Your task to perform on an android device: turn on sleep mode Image 0: 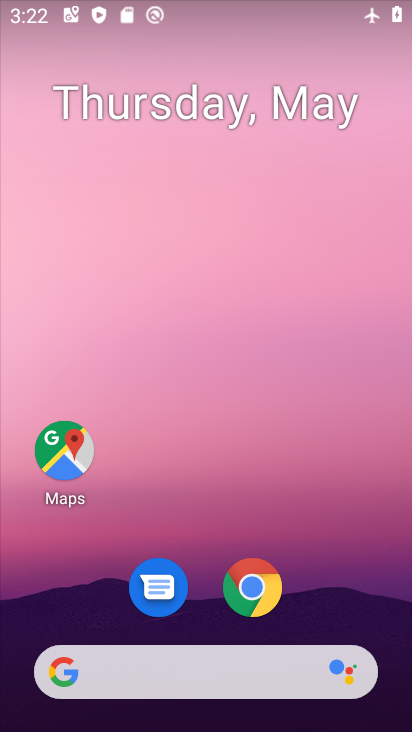
Step 0: drag from (202, 583) to (198, 213)
Your task to perform on an android device: turn on sleep mode Image 1: 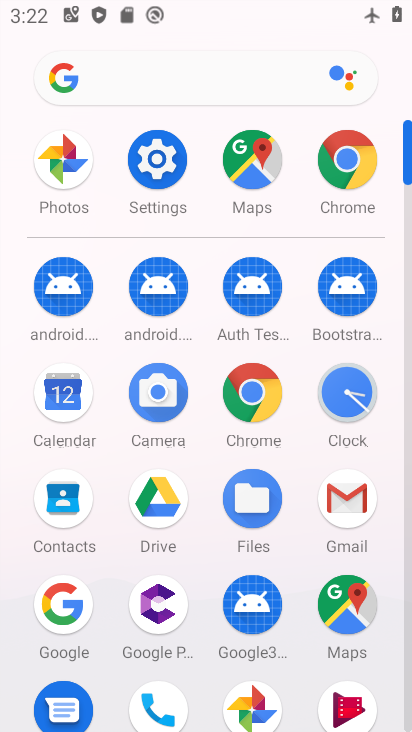
Step 1: click (149, 172)
Your task to perform on an android device: turn on sleep mode Image 2: 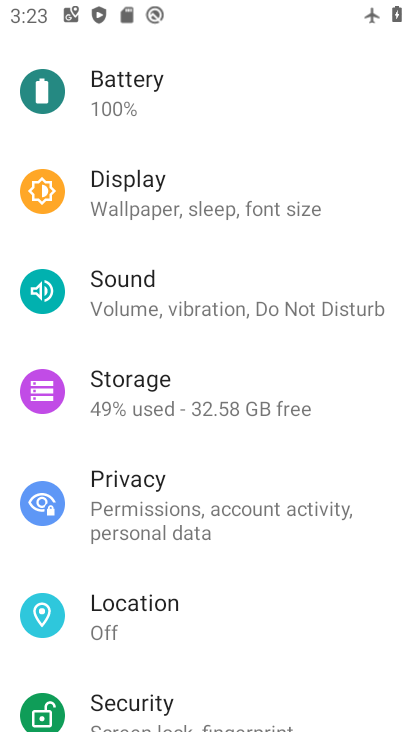
Step 2: drag from (152, 420) to (130, 201)
Your task to perform on an android device: turn on sleep mode Image 3: 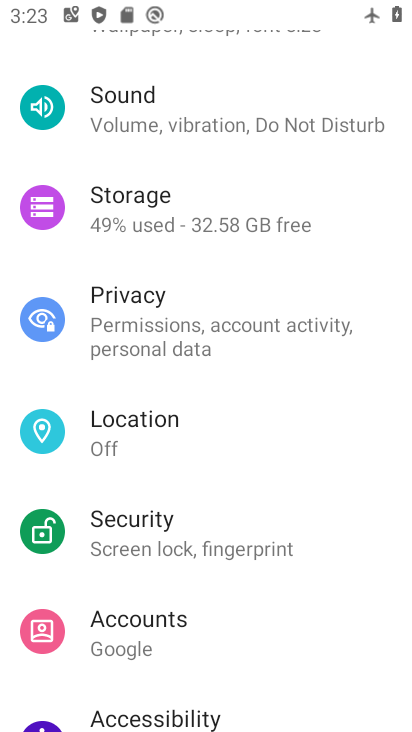
Step 3: drag from (152, 232) to (153, 514)
Your task to perform on an android device: turn on sleep mode Image 4: 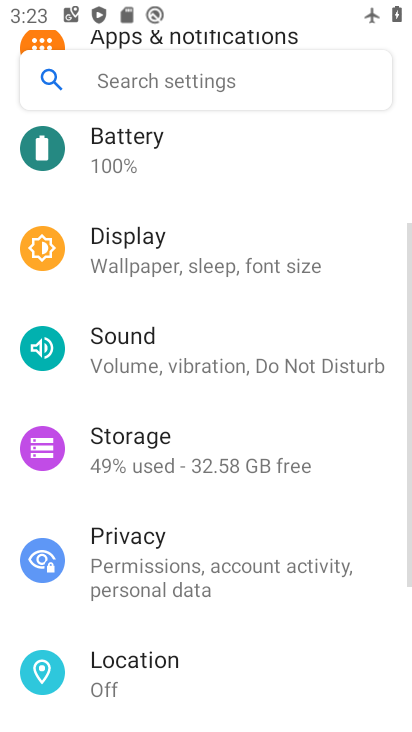
Step 4: drag from (145, 327) to (126, 531)
Your task to perform on an android device: turn on sleep mode Image 5: 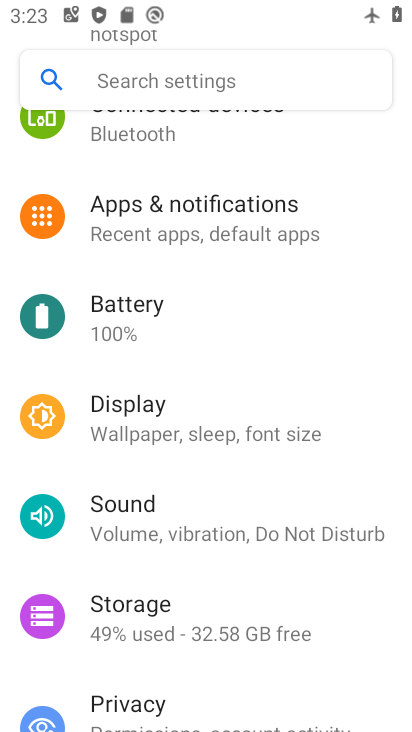
Step 5: drag from (114, 317) to (104, 543)
Your task to perform on an android device: turn on sleep mode Image 6: 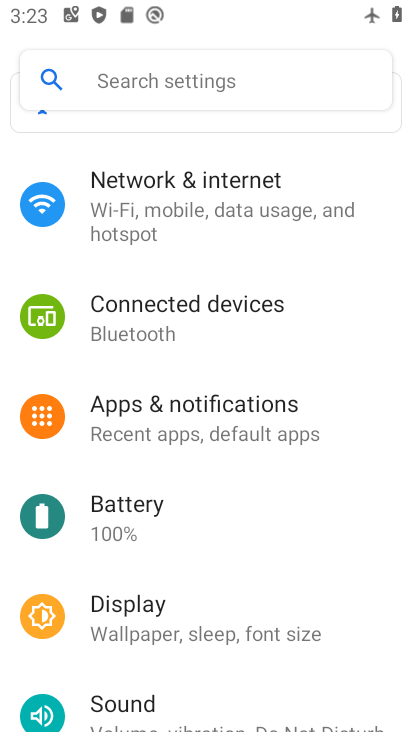
Step 6: drag from (107, 512) to (112, 315)
Your task to perform on an android device: turn on sleep mode Image 7: 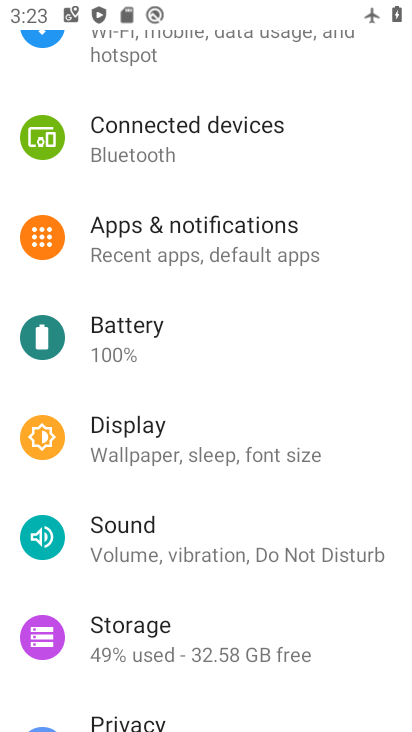
Step 7: click (123, 433)
Your task to perform on an android device: turn on sleep mode Image 8: 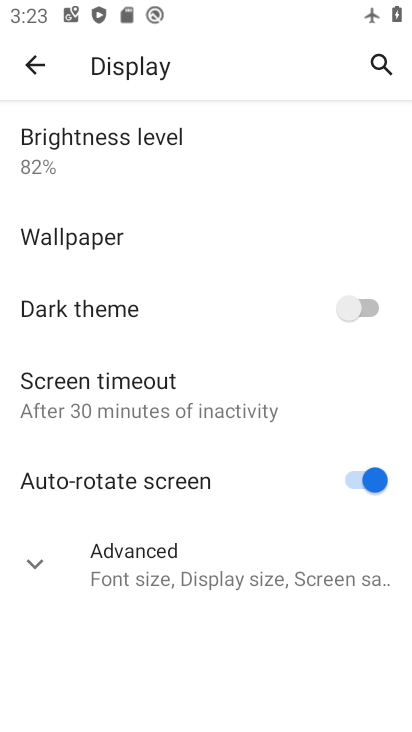
Step 8: click (184, 576)
Your task to perform on an android device: turn on sleep mode Image 9: 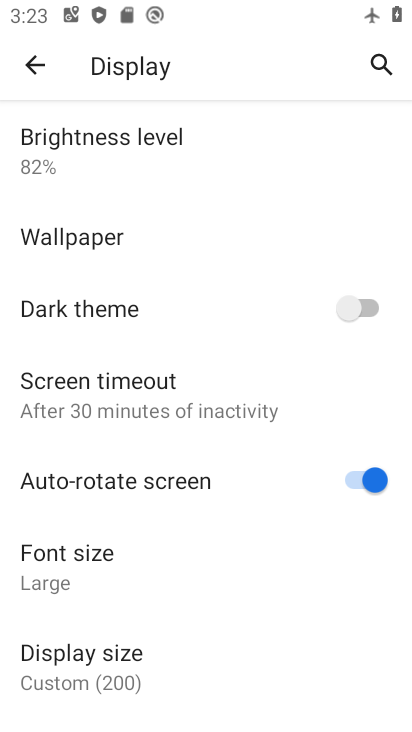
Step 9: task complete